Your task to perform on an android device: Is it going to rain today? Image 0: 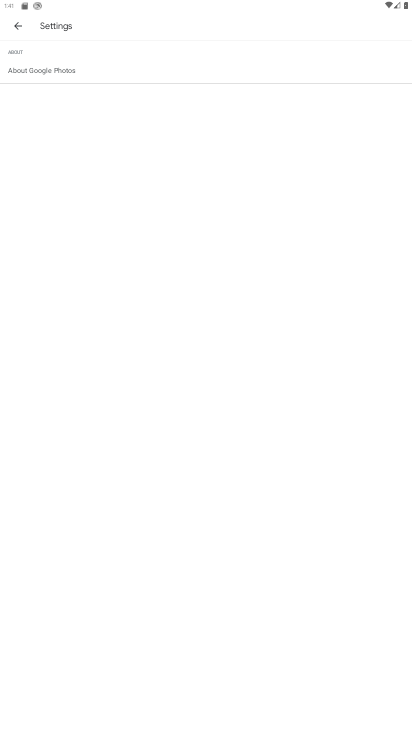
Step 0: press home button
Your task to perform on an android device: Is it going to rain today? Image 1: 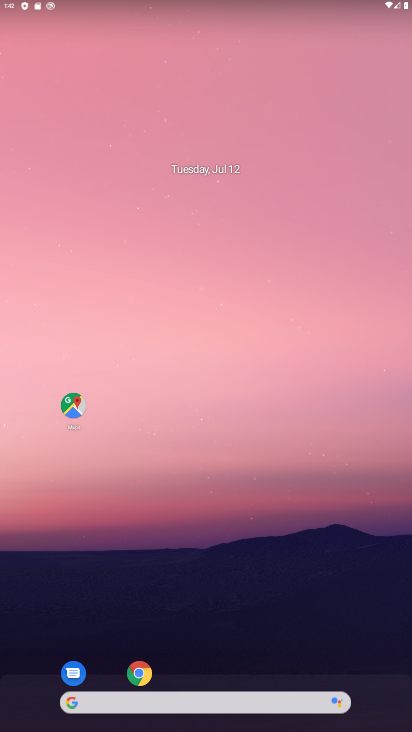
Step 1: drag from (221, 584) to (276, 162)
Your task to perform on an android device: Is it going to rain today? Image 2: 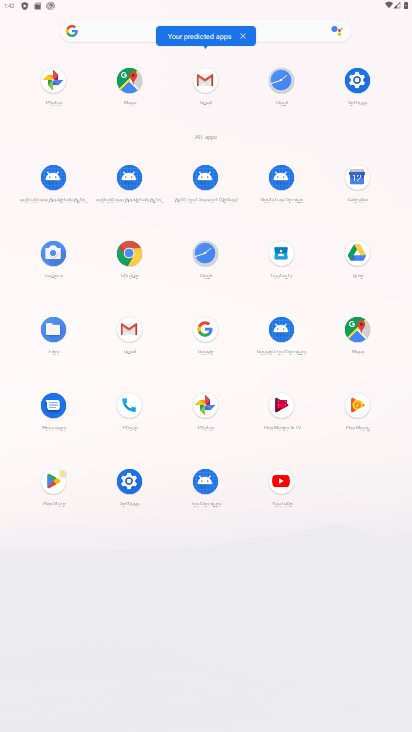
Step 2: click (207, 334)
Your task to perform on an android device: Is it going to rain today? Image 3: 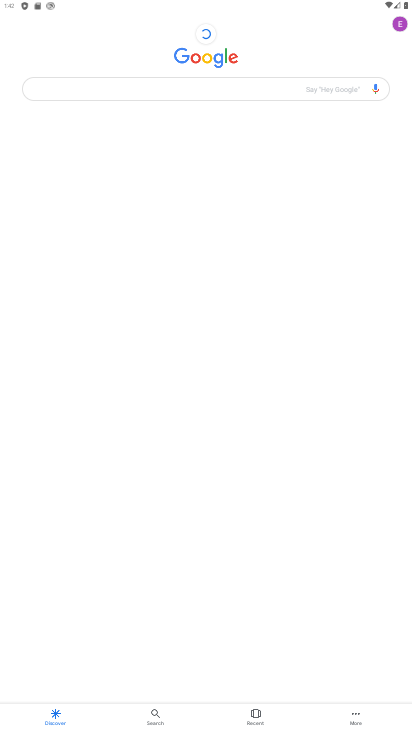
Step 3: click (245, 86)
Your task to perform on an android device: Is it going to rain today? Image 4: 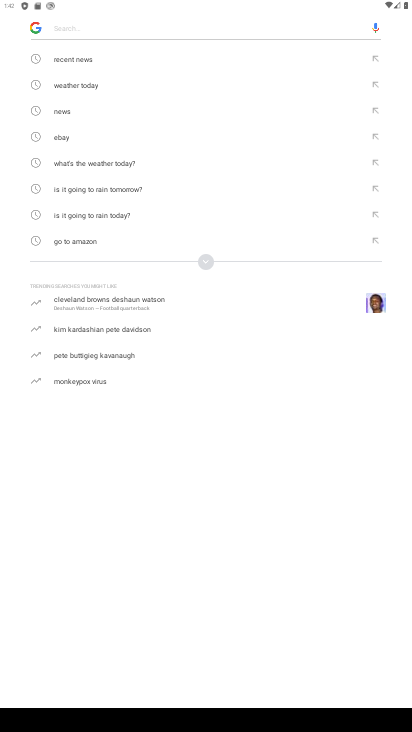
Step 4: click (103, 85)
Your task to perform on an android device: Is it going to rain today? Image 5: 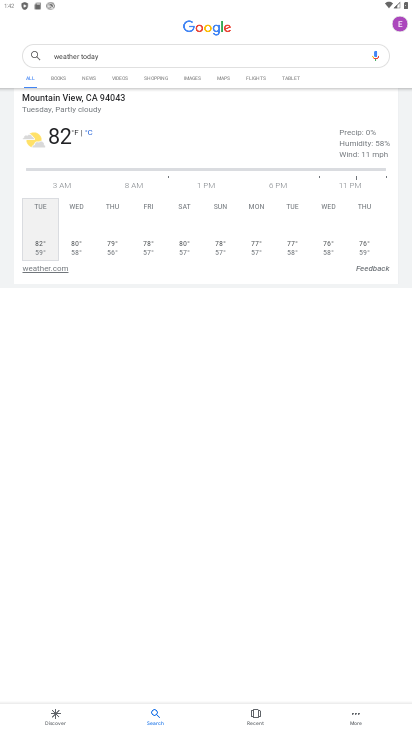
Step 5: task complete